Your task to perform on an android device: check storage Image 0: 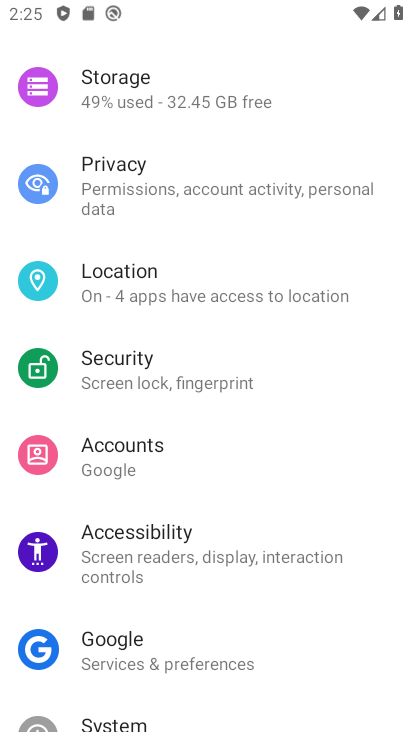
Step 0: click (195, 96)
Your task to perform on an android device: check storage Image 1: 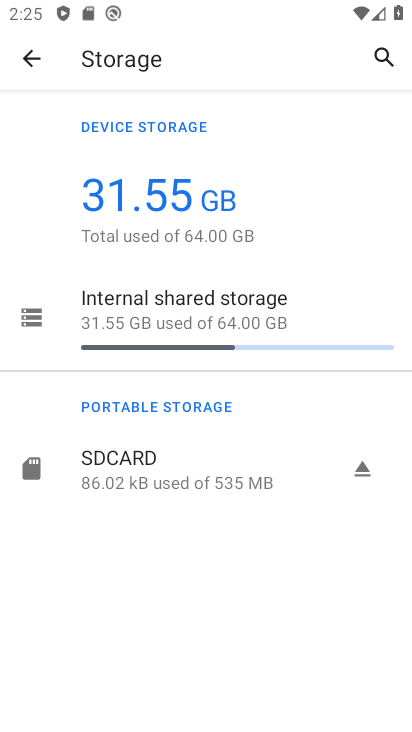
Step 1: task complete